Your task to perform on an android device: create a new album in the google photos Image 0: 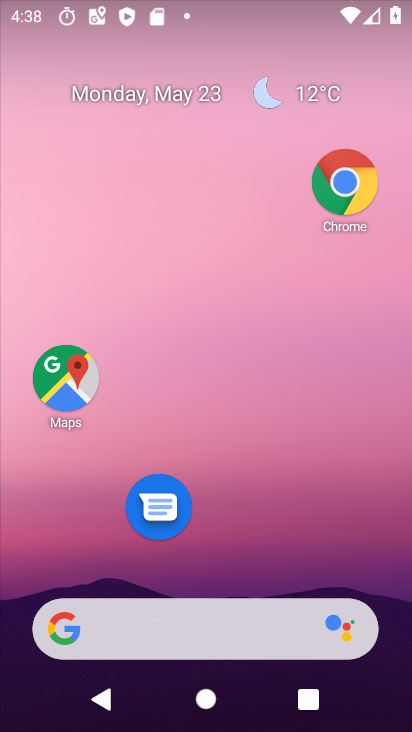
Step 0: drag from (177, 560) to (179, 44)
Your task to perform on an android device: create a new album in the google photos Image 1: 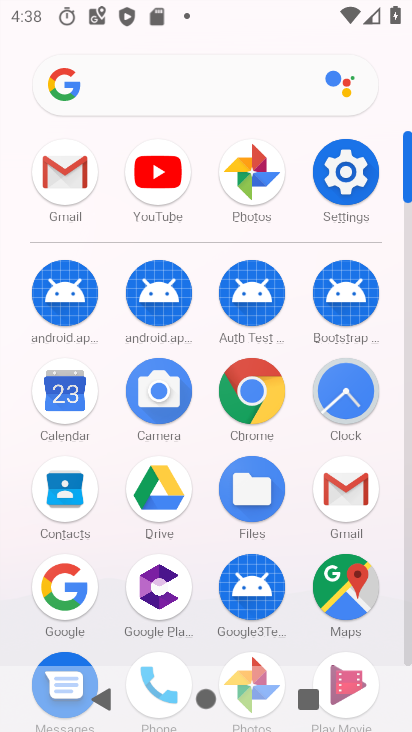
Step 1: click (254, 149)
Your task to perform on an android device: create a new album in the google photos Image 2: 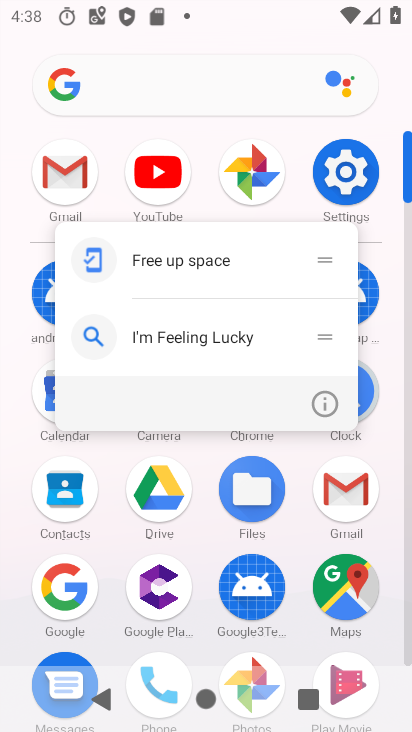
Step 2: click (250, 166)
Your task to perform on an android device: create a new album in the google photos Image 3: 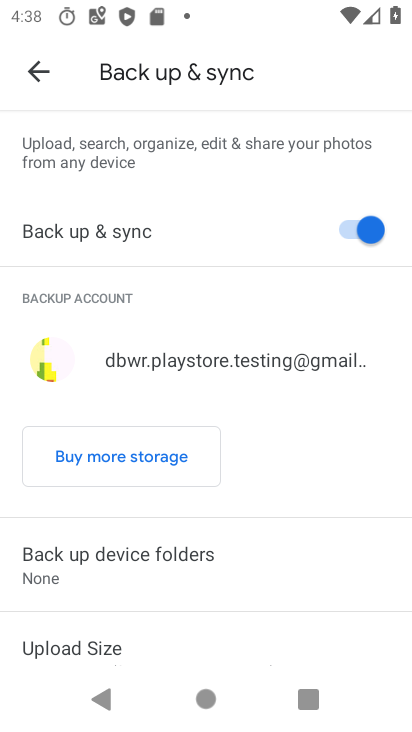
Step 3: click (20, 65)
Your task to perform on an android device: create a new album in the google photos Image 4: 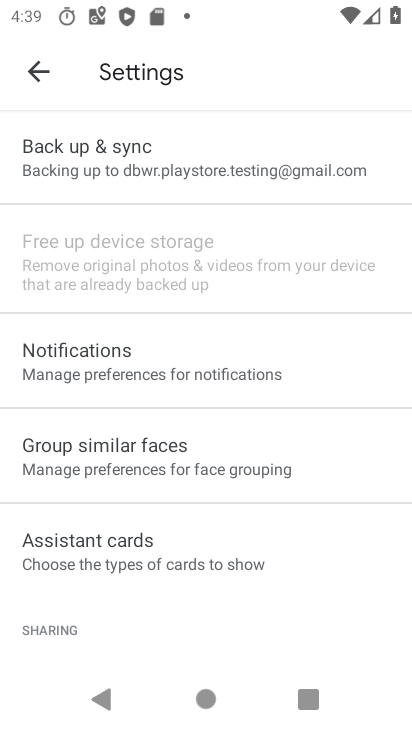
Step 4: click (20, 65)
Your task to perform on an android device: create a new album in the google photos Image 5: 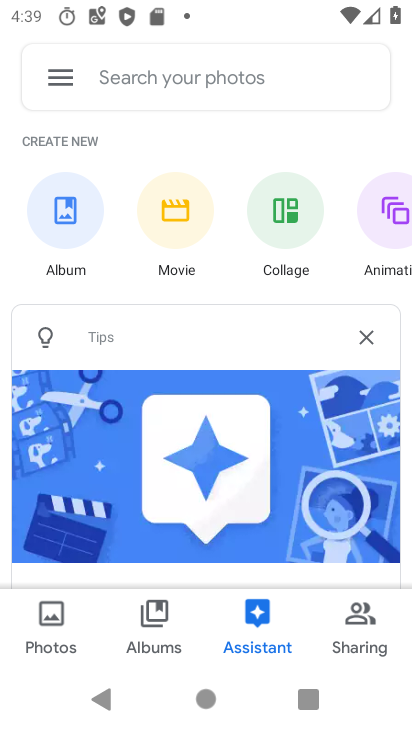
Step 5: click (60, 631)
Your task to perform on an android device: create a new album in the google photos Image 6: 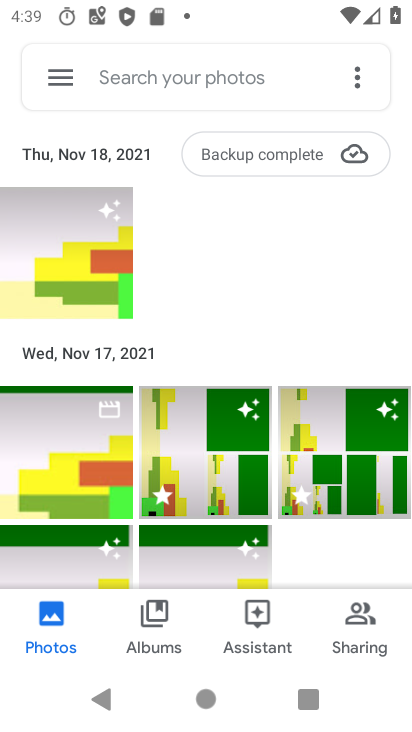
Step 6: click (91, 362)
Your task to perform on an android device: create a new album in the google photos Image 7: 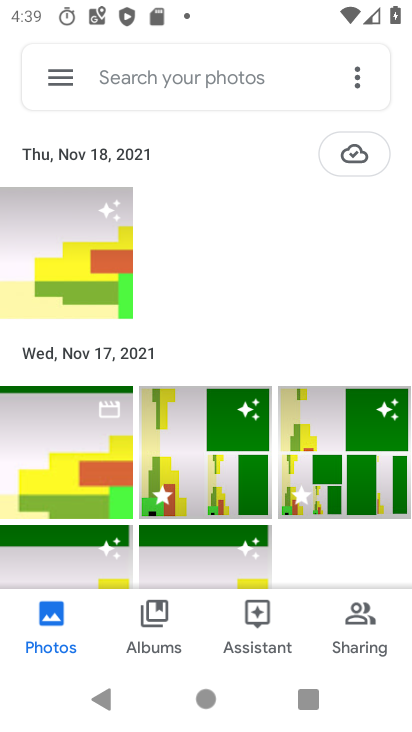
Step 7: click (132, 363)
Your task to perform on an android device: create a new album in the google photos Image 8: 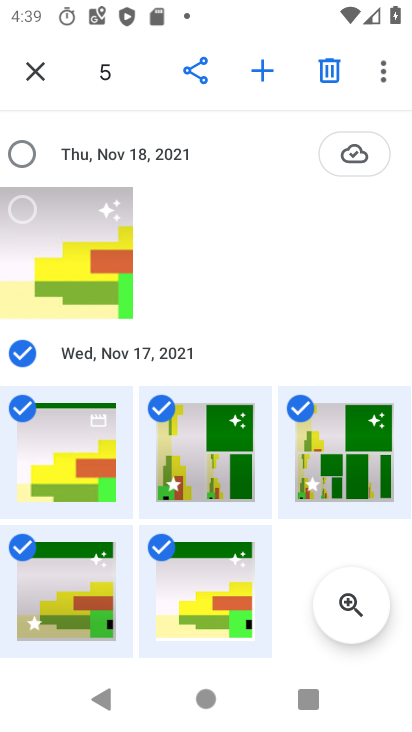
Step 8: click (246, 67)
Your task to perform on an android device: create a new album in the google photos Image 9: 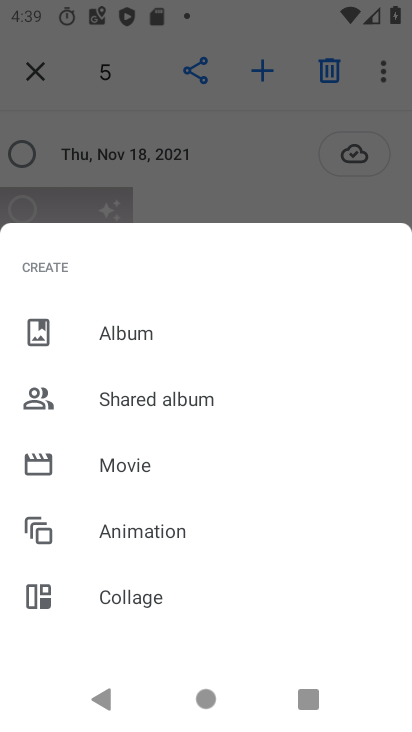
Step 9: click (233, 331)
Your task to perform on an android device: create a new album in the google photos Image 10: 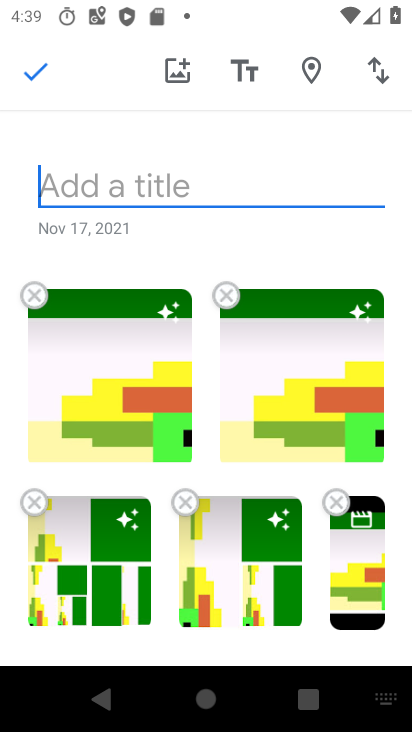
Step 10: type "blore"
Your task to perform on an android device: create a new album in the google photos Image 11: 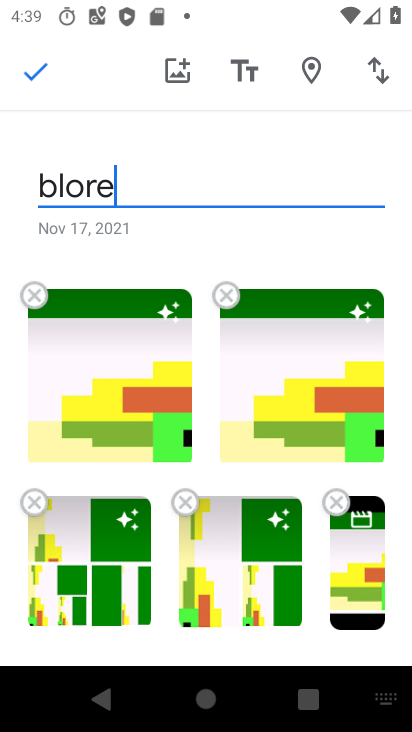
Step 11: click (46, 75)
Your task to perform on an android device: create a new album in the google photos Image 12: 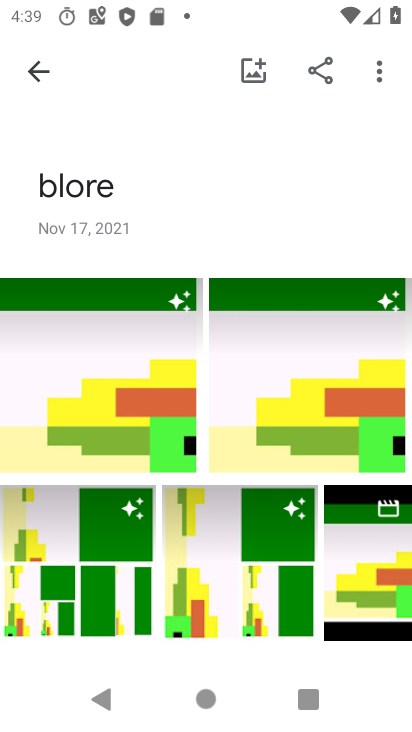
Step 12: task complete